Your task to perform on an android device: Go to Maps Image 0: 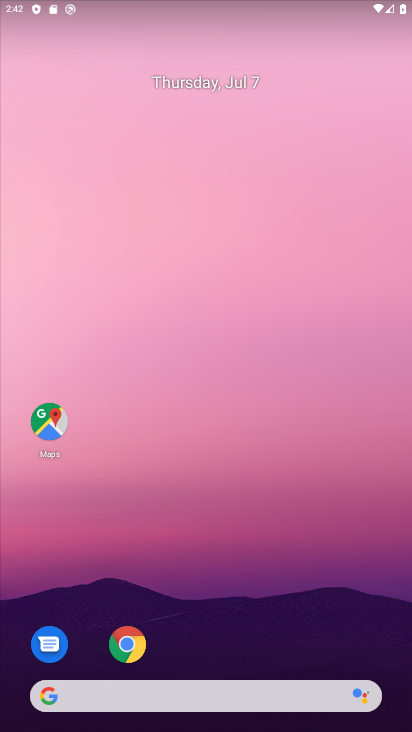
Step 0: drag from (206, 713) to (127, 210)
Your task to perform on an android device: Go to Maps Image 1: 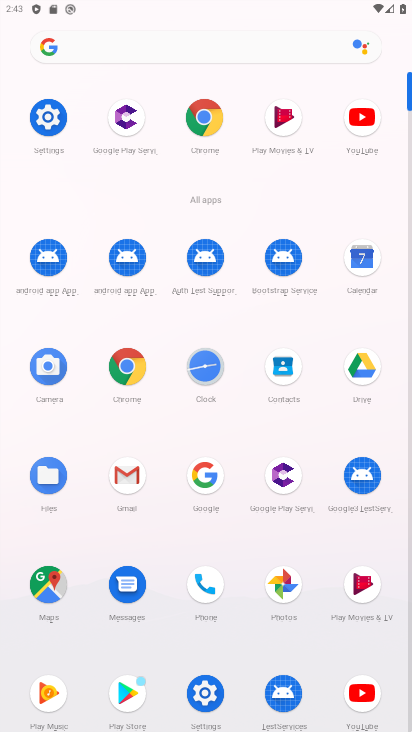
Step 1: click (47, 593)
Your task to perform on an android device: Go to Maps Image 2: 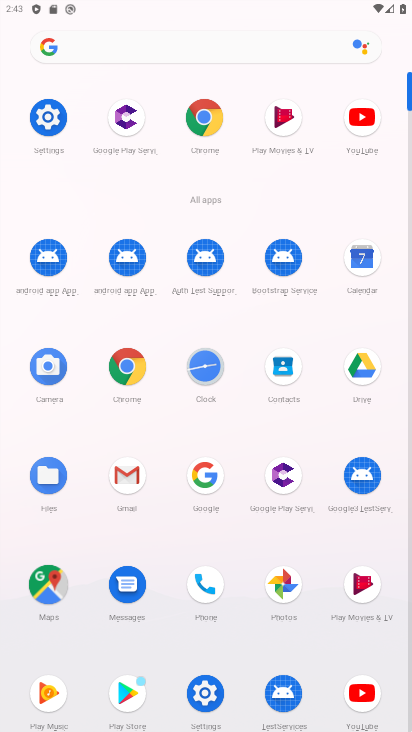
Step 2: click (50, 590)
Your task to perform on an android device: Go to Maps Image 3: 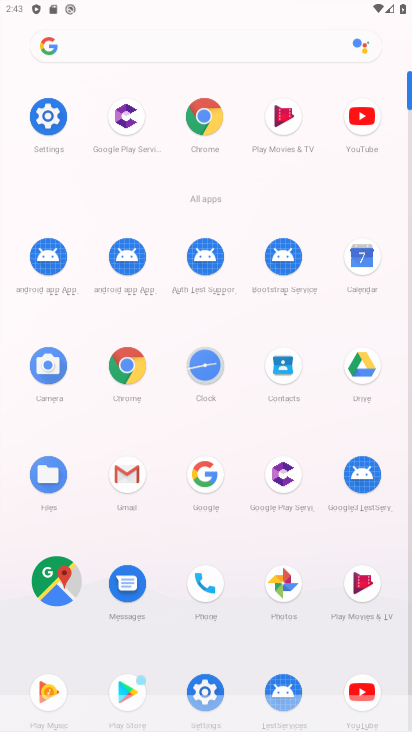
Step 3: click (50, 590)
Your task to perform on an android device: Go to Maps Image 4: 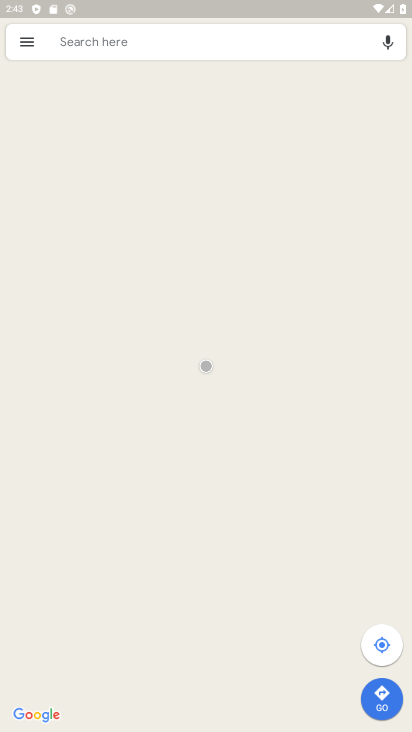
Step 4: task complete